Your task to perform on an android device: What is the recent news? Image 0: 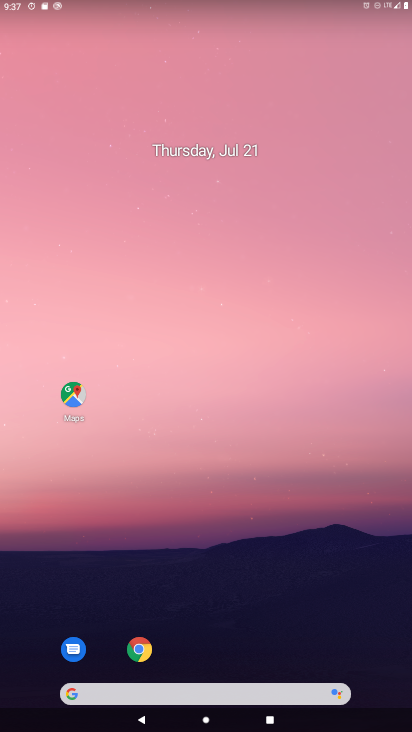
Step 0: drag from (391, 628) to (244, 36)
Your task to perform on an android device: What is the recent news? Image 1: 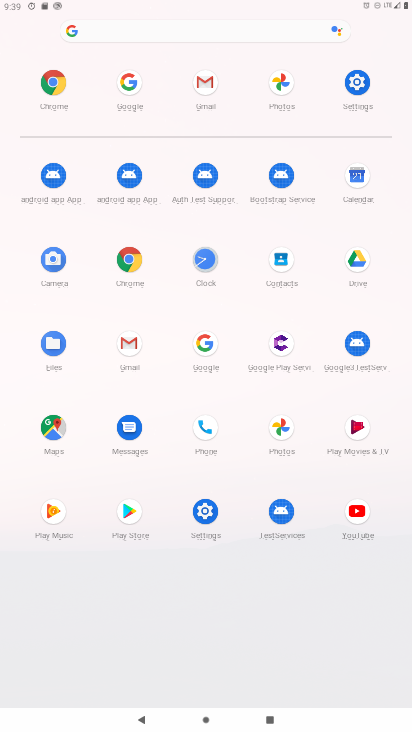
Step 1: click (207, 337)
Your task to perform on an android device: What is the recent news? Image 2: 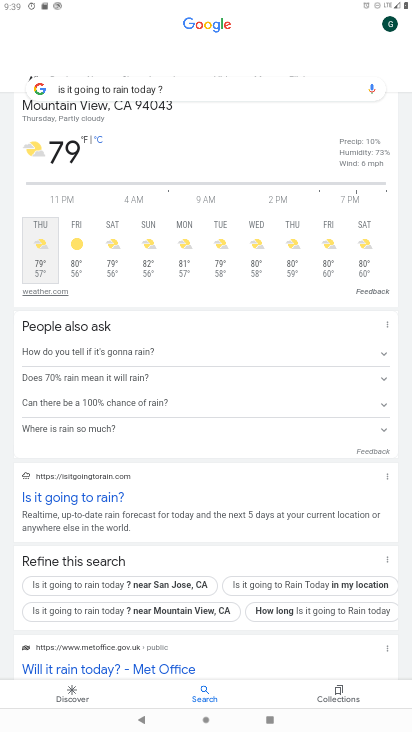
Step 2: press back button
Your task to perform on an android device: What is the recent news? Image 3: 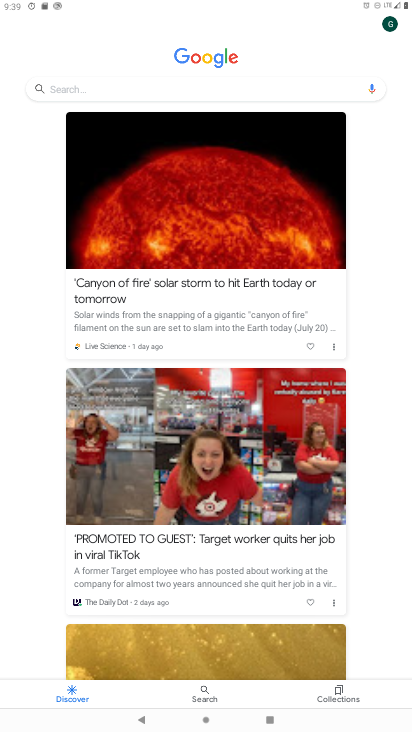
Step 3: click (98, 91)
Your task to perform on an android device: What is the recent news? Image 4: 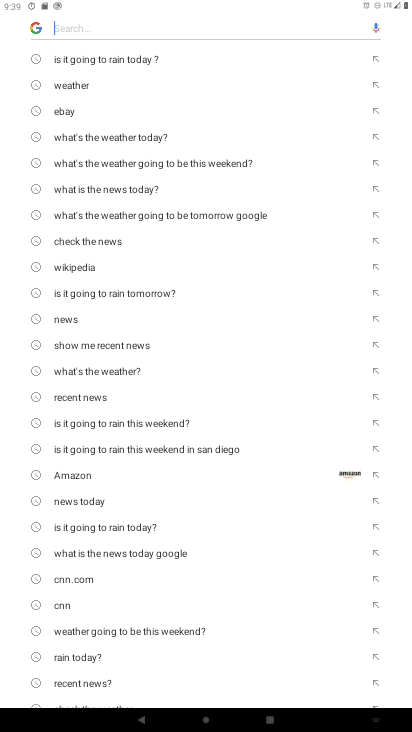
Step 4: type "What is the recent news?"
Your task to perform on an android device: What is the recent news? Image 5: 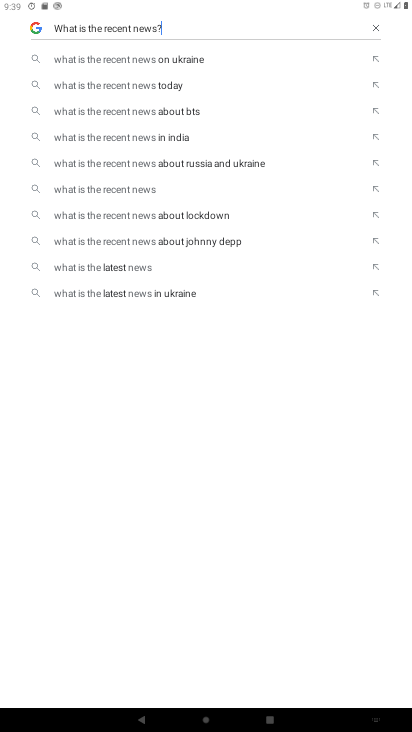
Step 5: click (111, 194)
Your task to perform on an android device: What is the recent news? Image 6: 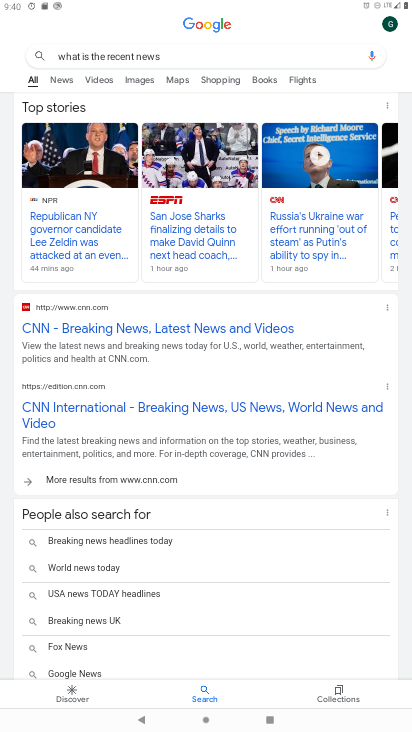
Step 6: task complete